Your task to perform on an android device: change notifications settings Image 0: 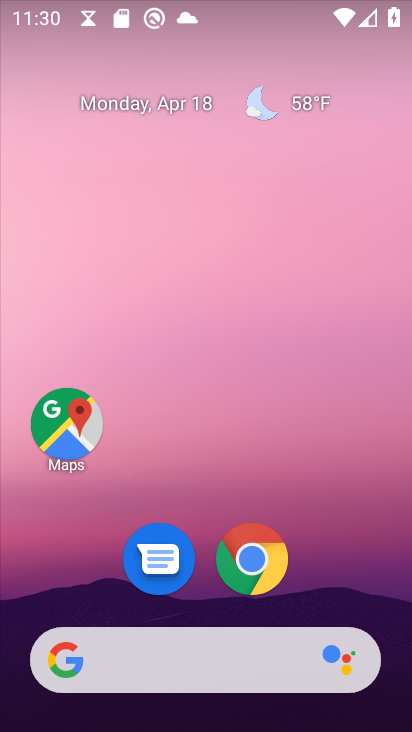
Step 0: drag from (305, 502) to (267, 104)
Your task to perform on an android device: change notifications settings Image 1: 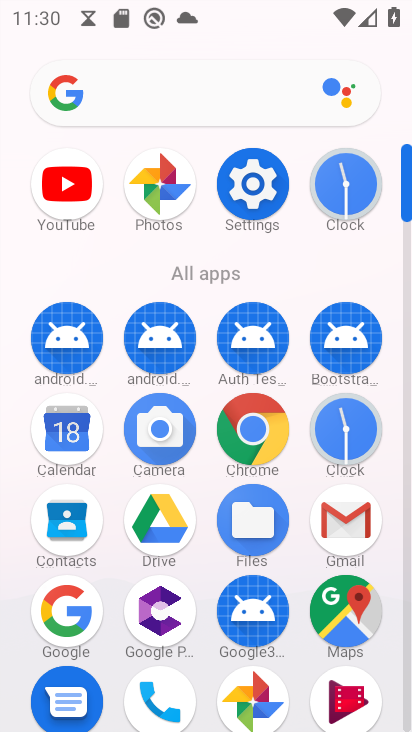
Step 1: click (251, 174)
Your task to perform on an android device: change notifications settings Image 2: 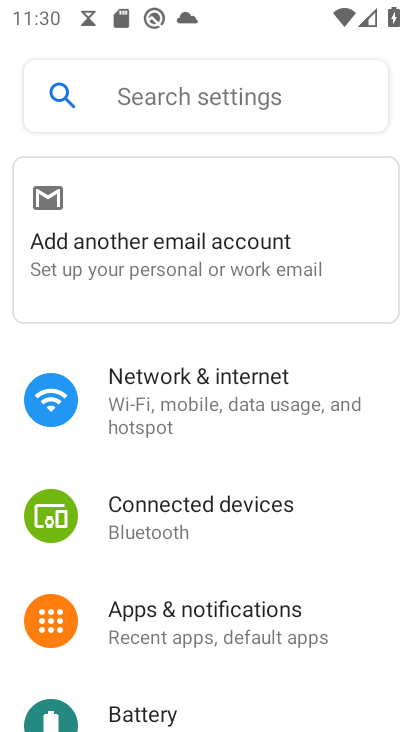
Step 2: click (122, 634)
Your task to perform on an android device: change notifications settings Image 3: 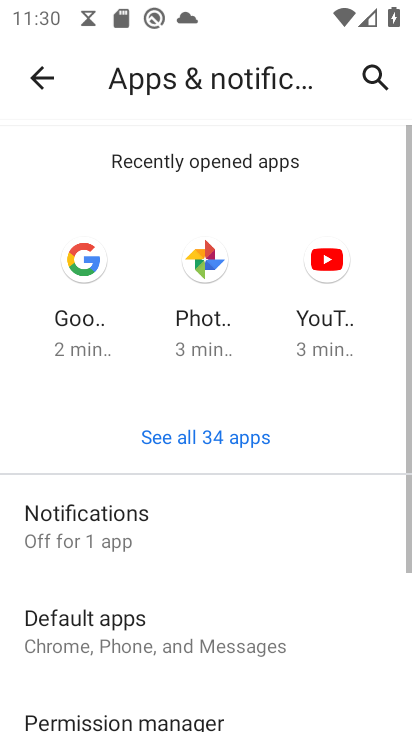
Step 3: click (92, 536)
Your task to perform on an android device: change notifications settings Image 4: 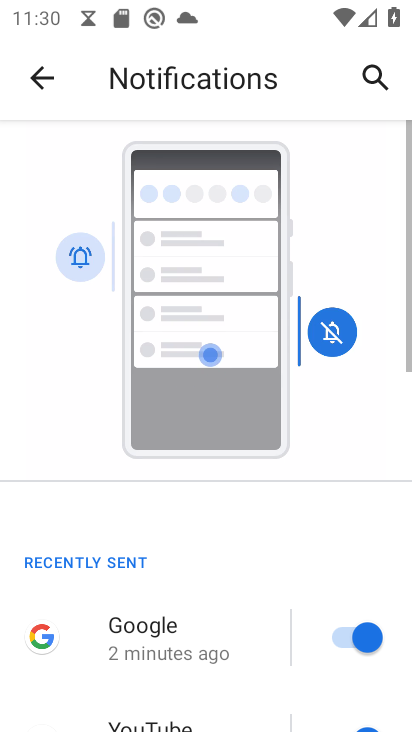
Step 4: drag from (155, 606) to (153, 248)
Your task to perform on an android device: change notifications settings Image 5: 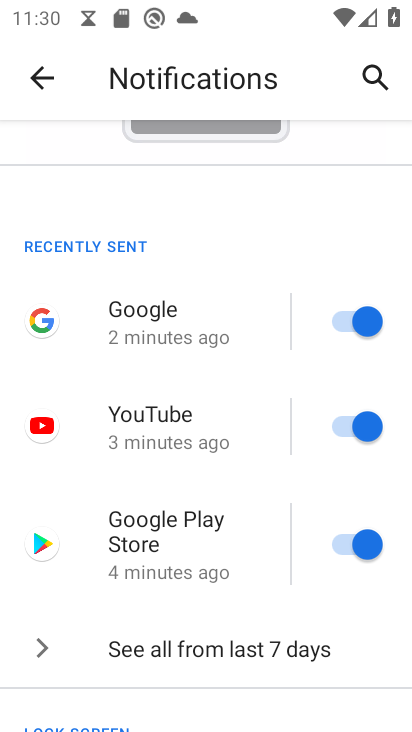
Step 5: click (366, 305)
Your task to perform on an android device: change notifications settings Image 6: 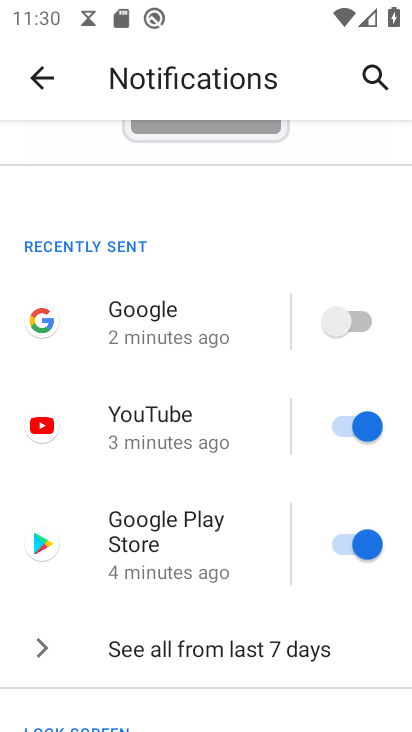
Step 6: click (373, 425)
Your task to perform on an android device: change notifications settings Image 7: 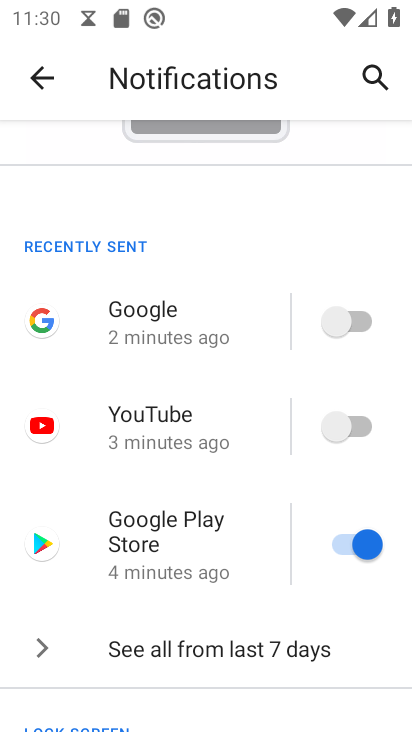
Step 7: click (369, 545)
Your task to perform on an android device: change notifications settings Image 8: 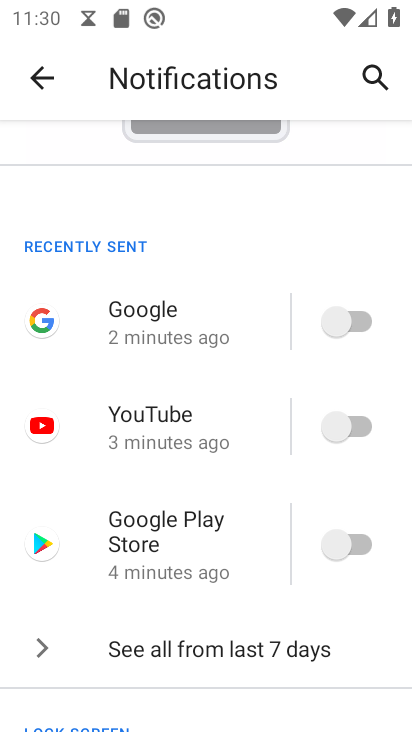
Step 8: task complete